Your task to perform on an android device: add a label to a message in the gmail app Image 0: 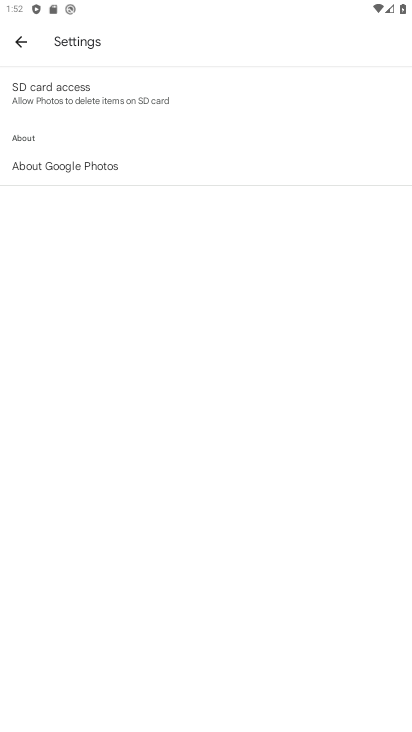
Step 0: press home button
Your task to perform on an android device: add a label to a message in the gmail app Image 1: 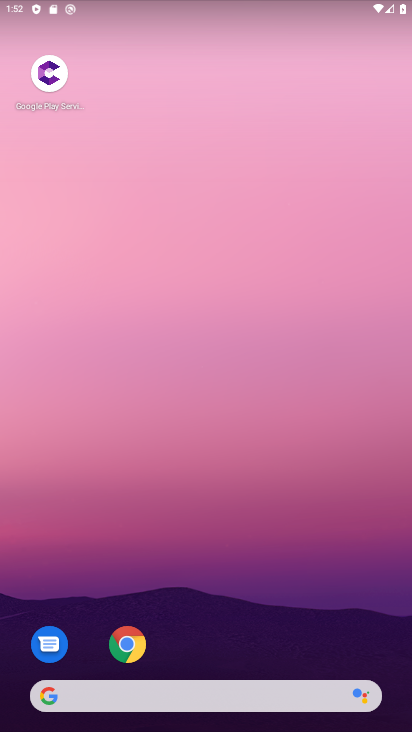
Step 1: drag from (280, 610) to (224, 103)
Your task to perform on an android device: add a label to a message in the gmail app Image 2: 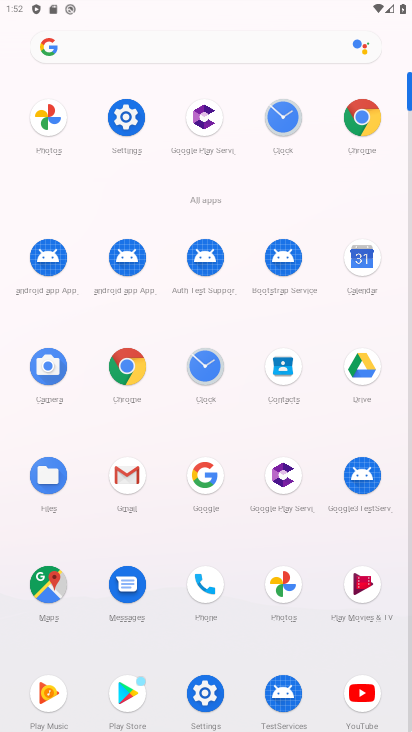
Step 2: click (125, 457)
Your task to perform on an android device: add a label to a message in the gmail app Image 3: 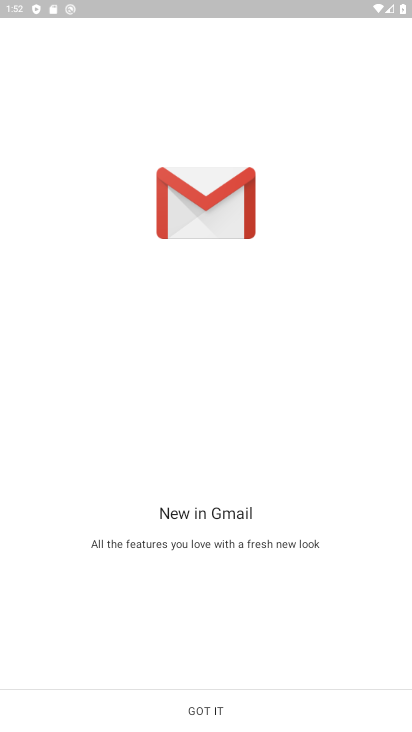
Step 3: click (206, 697)
Your task to perform on an android device: add a label to a message in the gmail app Image 4: 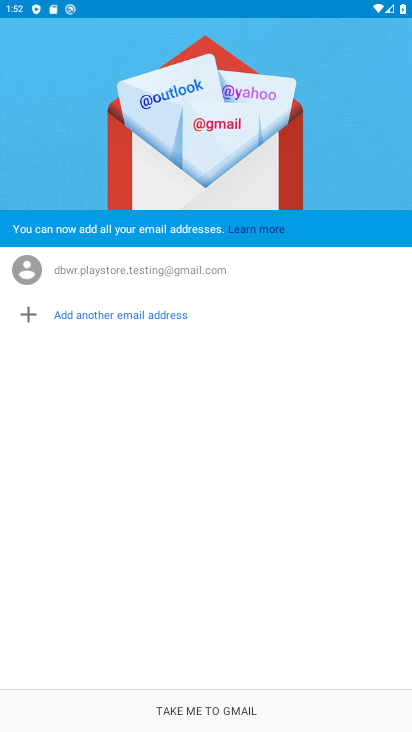
Step 4: click (203, 717)
Your task to perform on an android device: add a label to a message in the gmail app Image 5: 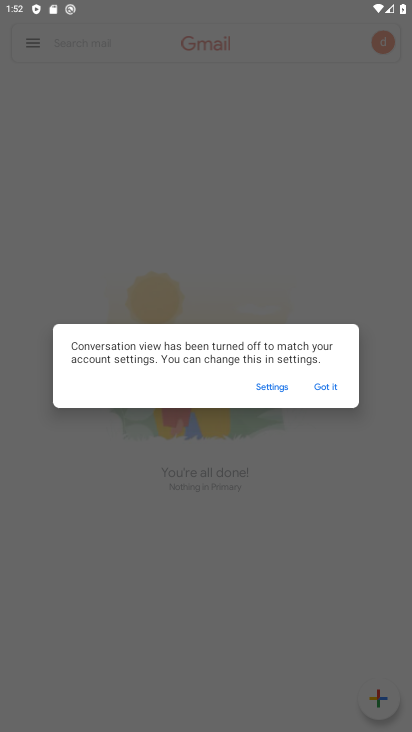
Step 5: click (318, 386)
Your task to perform on an android device: add a label to a message in the gmail app Image 6: 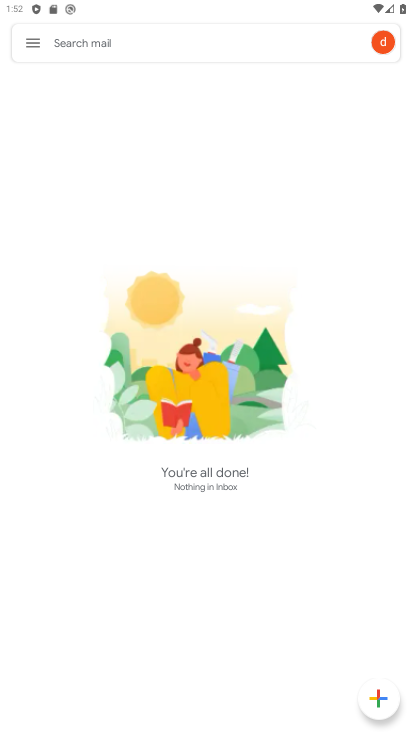
Step 6: click (36, 34)
Your task to perform on an android device: add a label to a message in the gmail app Image 7: 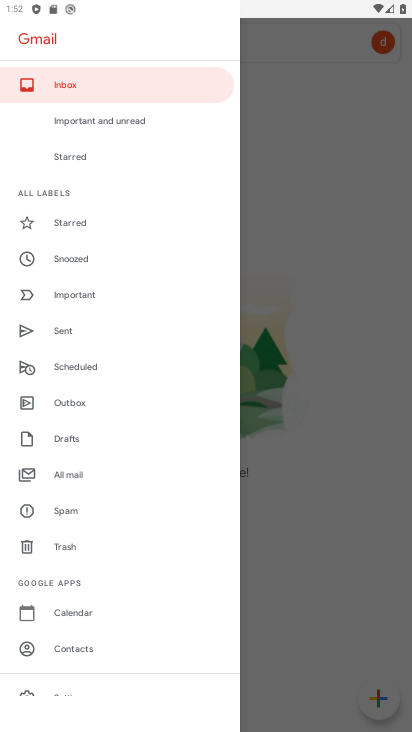
Step 7: click (72, 477)
Your task to perform on an android device: add a label to a message in the gmail app Image 8: 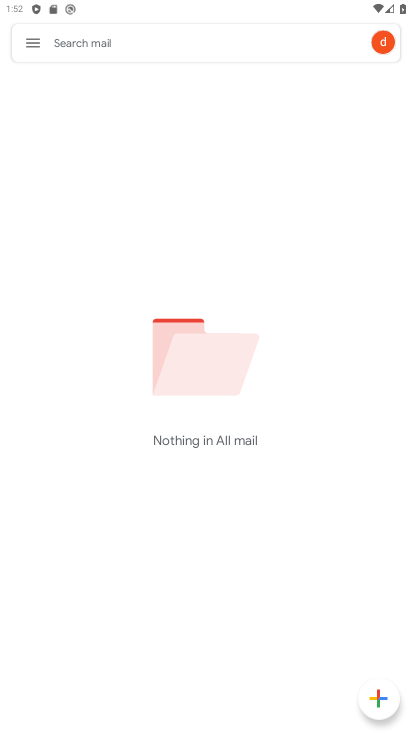
Step 8: task complete